Your task to perform on an android device: check data usage Image 0: 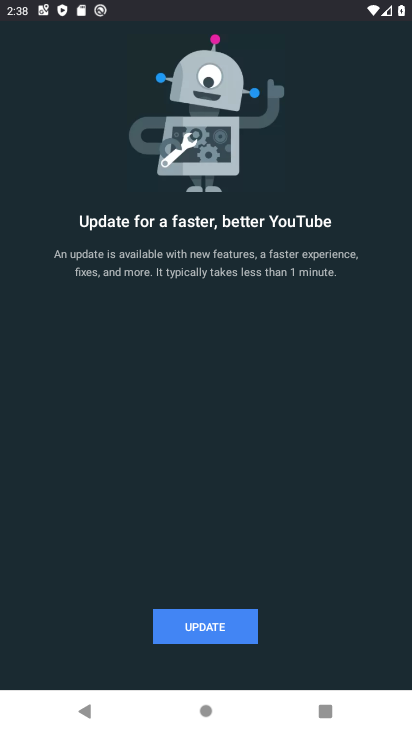
Step 0: press home button
Your task to perform on an android device: check data usage Image 1: 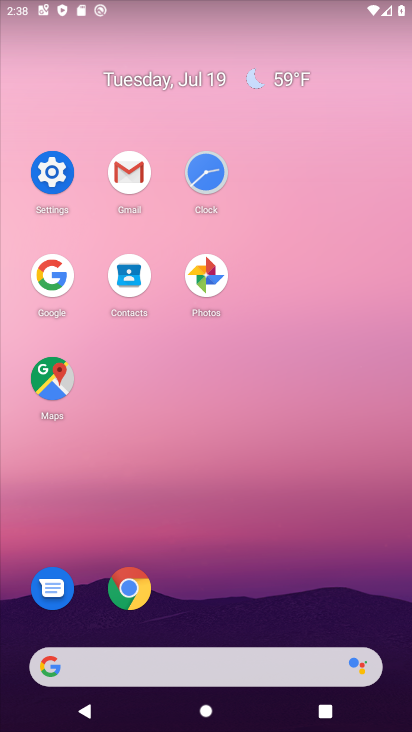
Step 1: click (57, 175)
Your task to perform on an android device: check data usage Image 2: 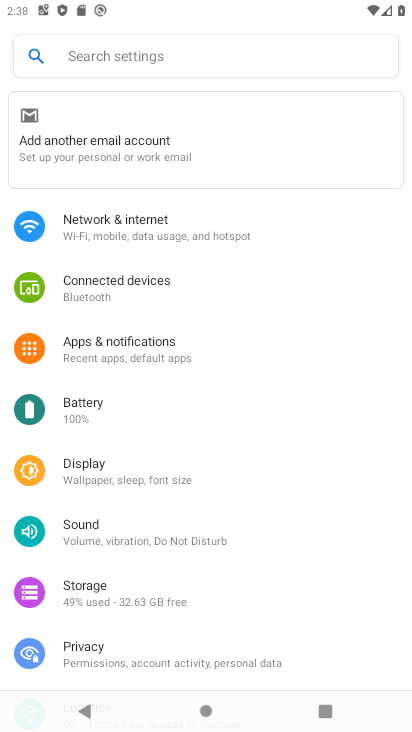
Step 2: click (145, 237)
Your task to perform on an android device: check data usage Image 3: 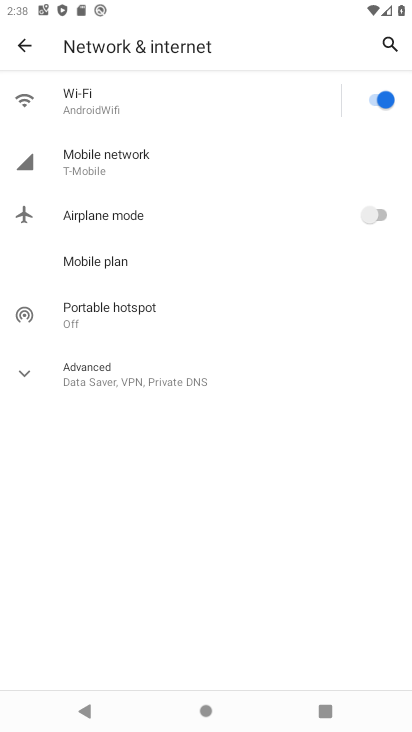
Step 3: click (158, 167)
Your task to perform on an android device: check data usage Image 4: 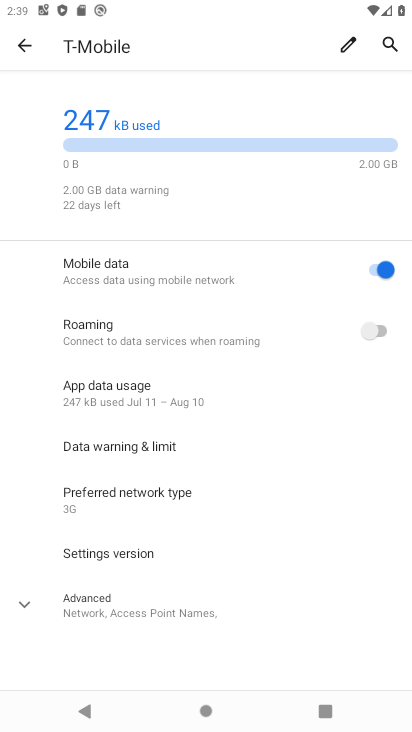
Step 4: task complete